Your task to perform on an android device: open app "Nova Launcher" (install if not already installed) Image 0: 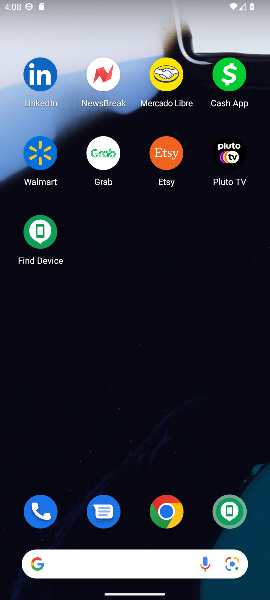
Step 0: drag from (139, 239) to (151, 67)
Your task to perform on an android device: open app "Nova Launcher" (install if not already installed) Image 1: 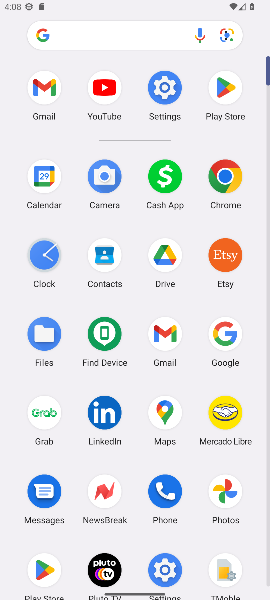
Step 1: click (224, 84)
Your task to perform on an android device: open app "Nova Launcher" (install if not already installed) Image 2: 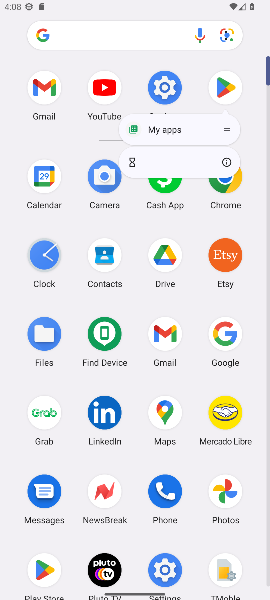
Step 2: click (225, 88)
Your task to perform on an android device: open app "Nova Launcher" (install if not already installed) Image 3: 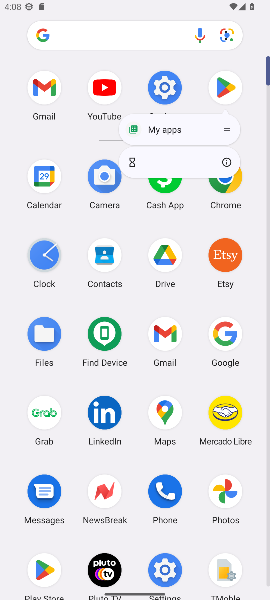
Step 3: click (224, 88)
Your task to perform on an android device: open app "Nova Launcher" (install if not already installed) Image 4: 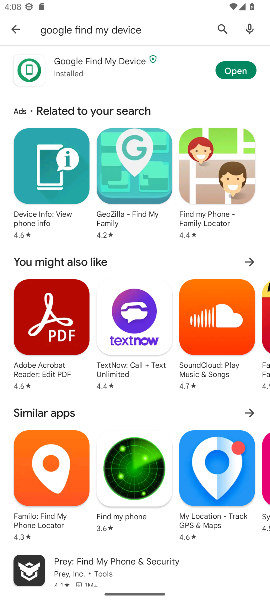
Step 4: click (221, 25)
Your task to perform on an android device: open app "Nova Launcher" (install if not already installed) Image 5: 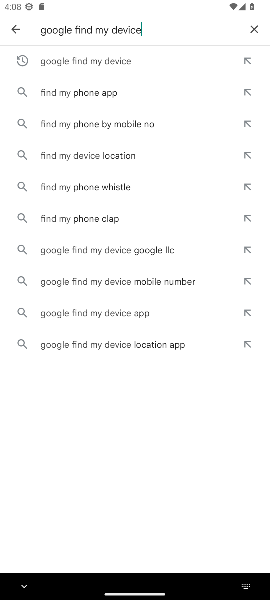
Step 5: click (255, 33)
Your task to perform on an android device: open app "Nova Launcher" (install if not already installed) Image 6: 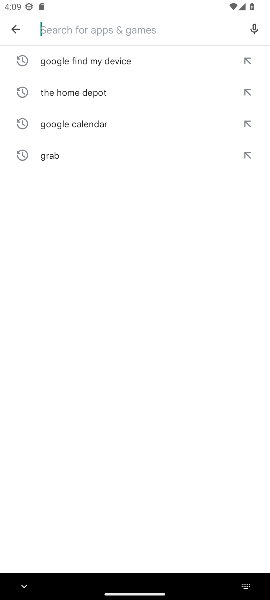
Step 6: type "Nova Launcher"
Your task to perform on an android device: open app "Nova Launcher" (install if not already installed) Image 7: 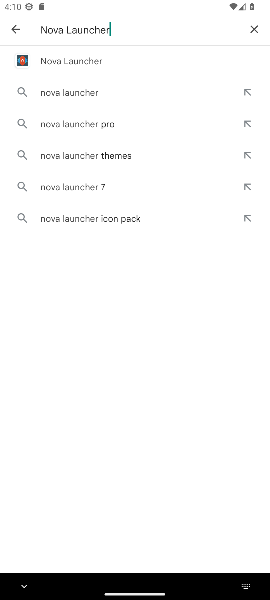
Step 7: click (76, 58)
Your task to perform on an android device: open app "Nova Launcher" (install if not already installed) Image 8: 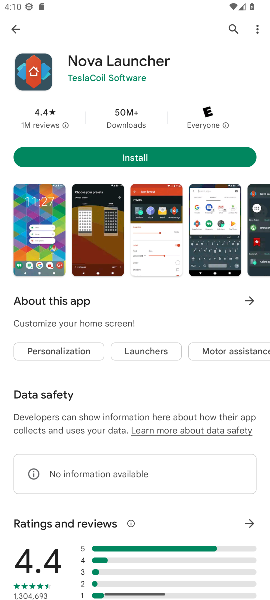
Step 8: click (101, 152)
Your task to perform on an android device: open app "Nova Launcher" (install if not already installed) Image 9: 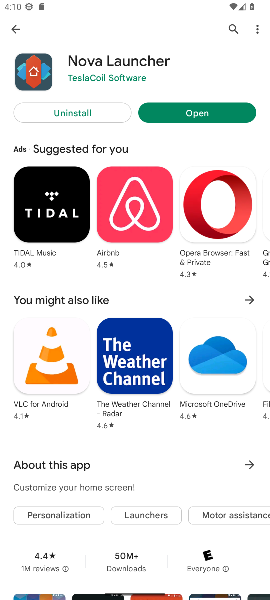
Step 9: click (211, 114)
Your task to perform on an android device: open app "Nova Launcher" (install if not already installed) Image 10: 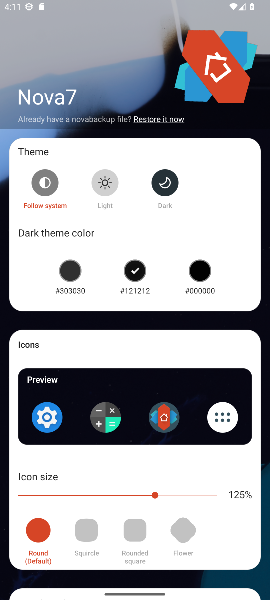
Step 10: task complete